Your task to perform on an android device: open chrome privacy settings Image 0: 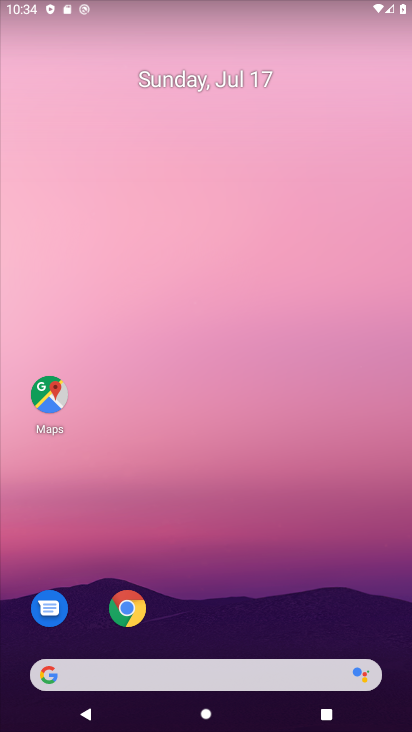
Step 0: drag from (206, 641) to (146, 311)
Your task to perform on an android device: open chrome privacy settings Image 1: 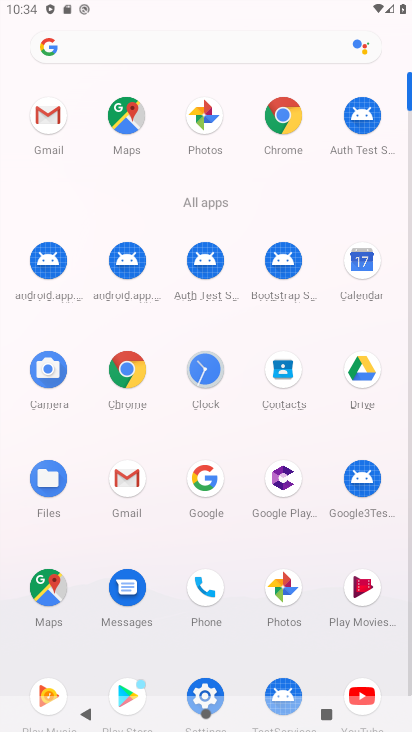
Step 1: click (274, 120)
Your task to perform on an android device: open chrome privacy settings Image 2: 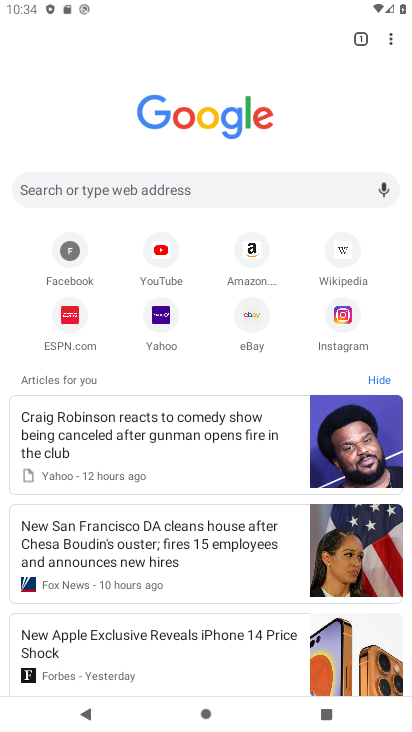
Step 2: click (391, 33)
Your task to perform on an android device: open chrome privacy settings Image 3: 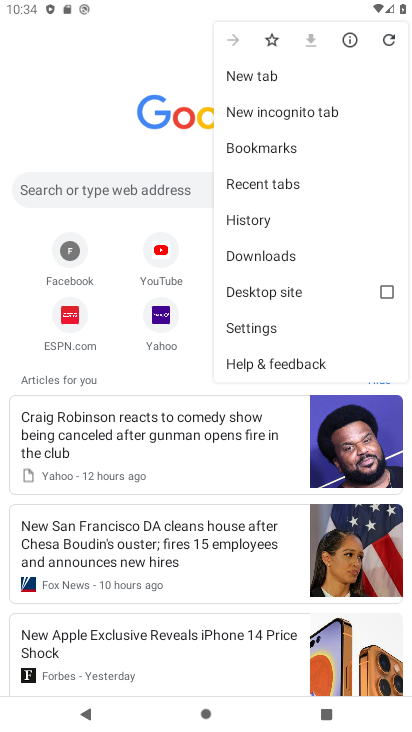
Step 3: click (283, 320)
Your task to perform on an android device: open chrome privacy settings Image 4: 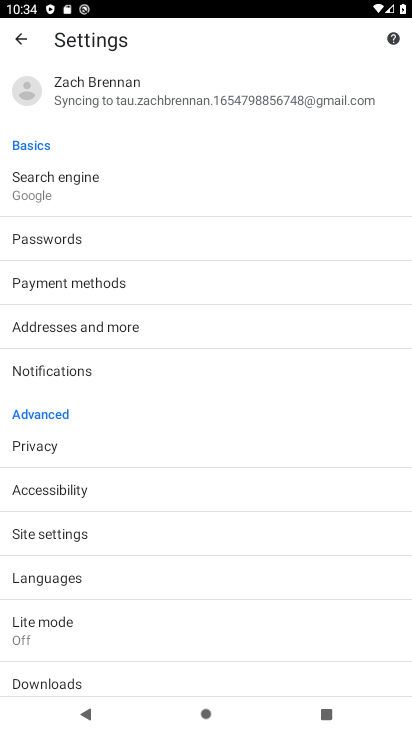
Step 4: click (141, 447)
Your task to perform on an android device: open chrome privacy settings Image 5: 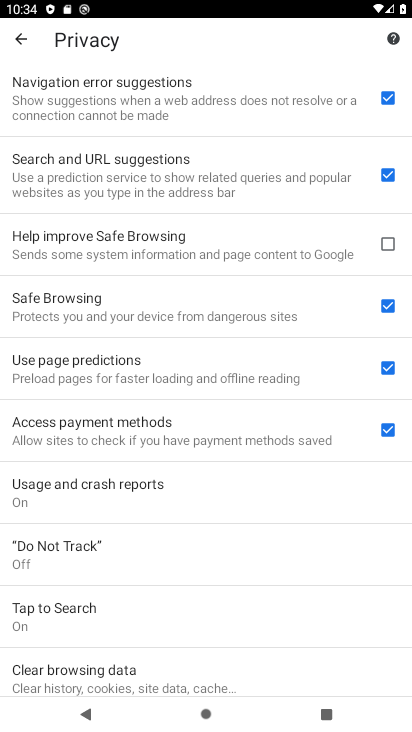
Step 5: task complete